Your task to perform on an android device: Go to battery settings Image 0: 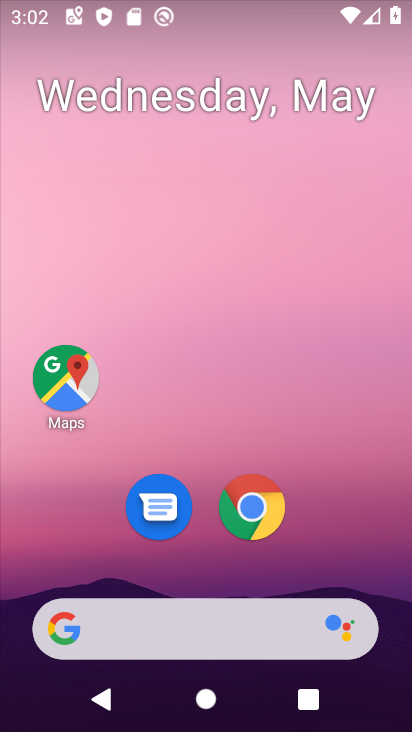
Step 0: drag from (213, 532) to (265, 0)
Your task to perform on an android device: Go to battery settings Image 1: 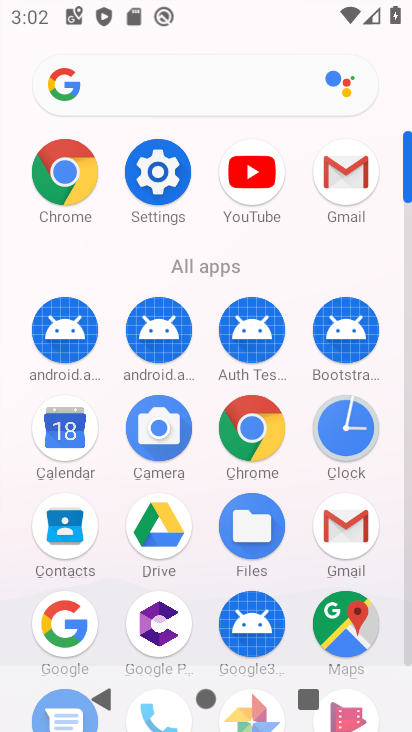
Step 1: click (177, 181)
Your task to perform on an android device: Go to battery settings Image 2: 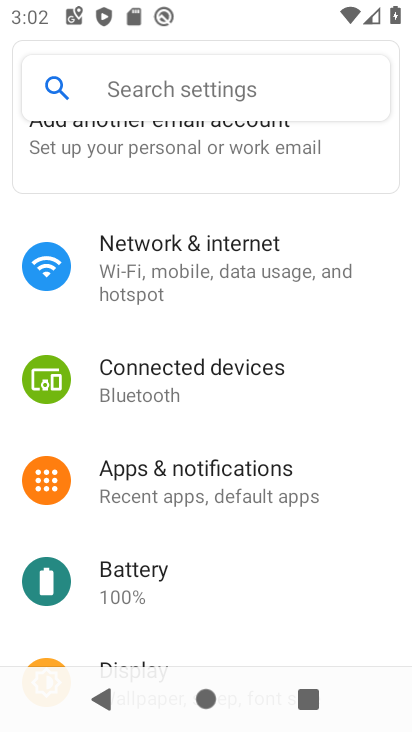
Step 2: click (128, 560)
Your task to perform on an android device: Go to battery settings Image 3: 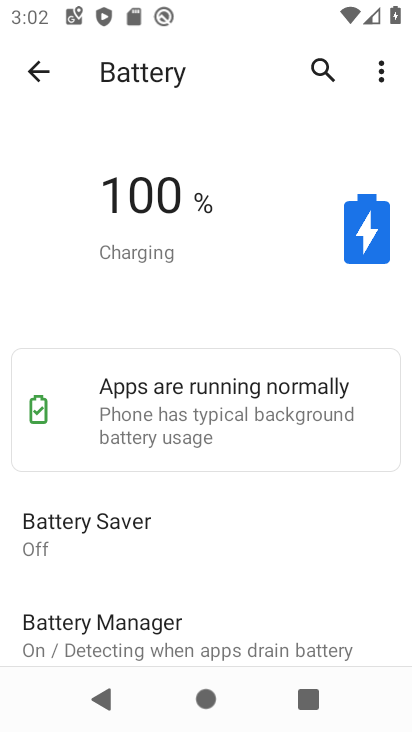
Step 3: task complete